Your task to perform on an android device: search for starred emails in the gmail app Image 0: 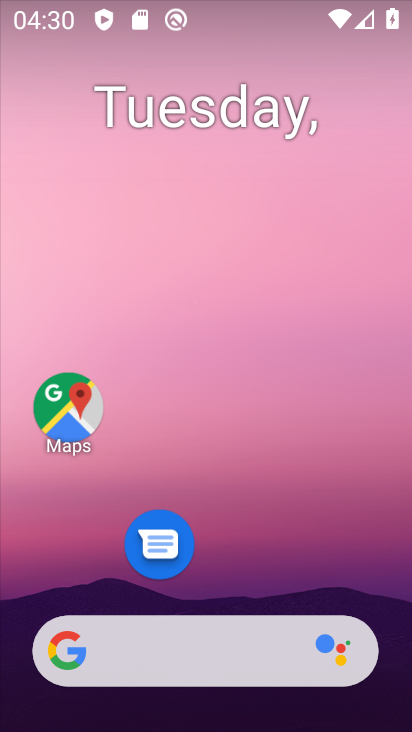
Step 0: drag from (225, 599) to (268, 8)
Your task to perform on an android device: search for starred emails in the gmail app Image 1: 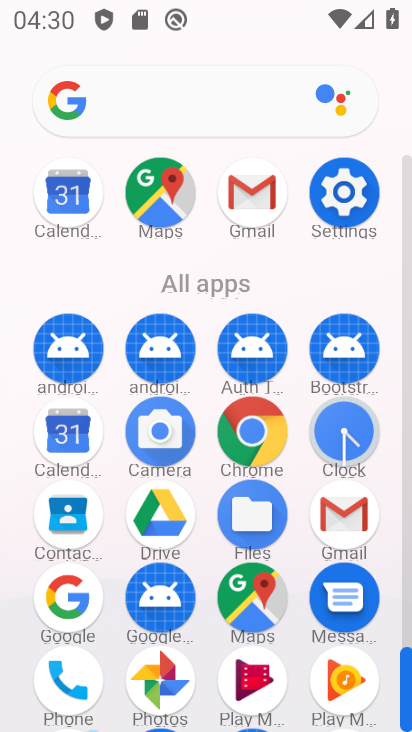
Step 1: click (255, 197)
Your task to perform on an android device: search for starred emails in the gmail app Image 2: 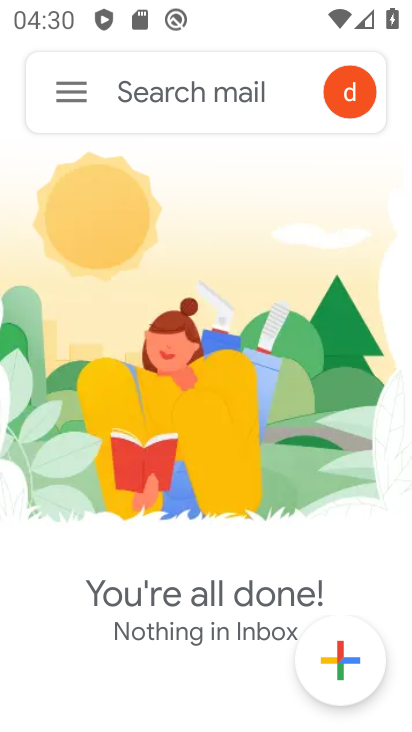
Step 2: click (58, 97)
Your task to perform on an android device: search for starred emails in the gmail app Image 3: 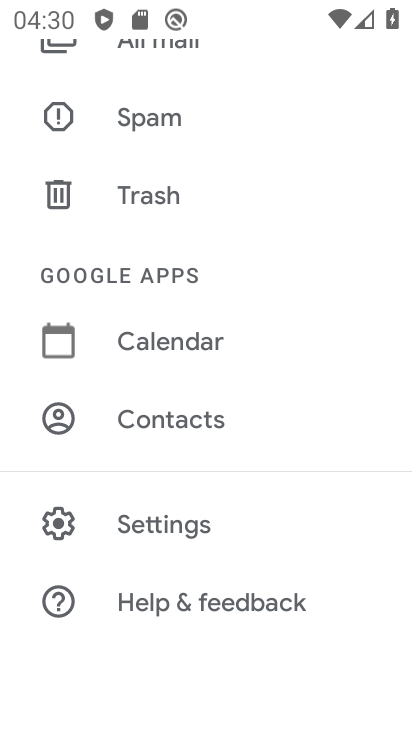
Step 3: drag from (220, 214) to (203, 459)
Your task to perform on an android device: search for starred emails in the gmail app Image 4: 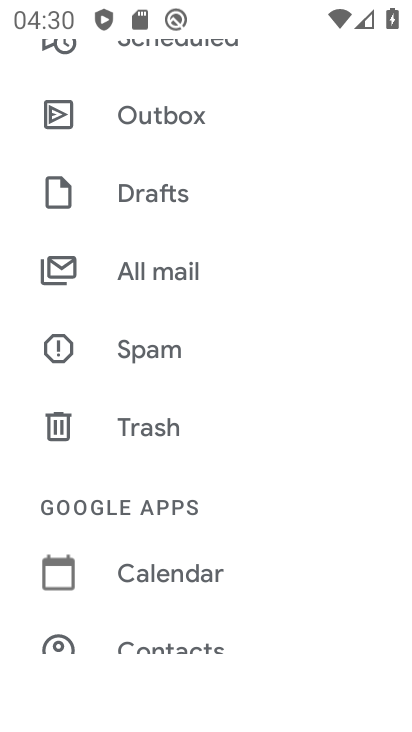
Step 4: drag from (192, 161) to (205, 506)
Your task to perform on an android device: search for starred emails in the gmail app Image 5: 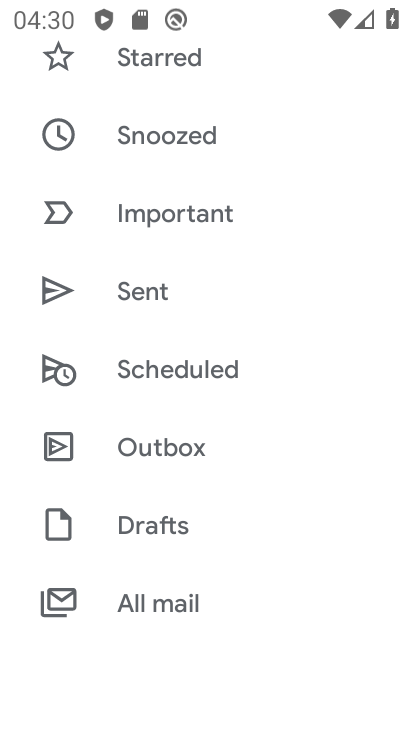
Step 5: click (175, 61)
Your task to perform on an android device: search for starred emails in the gmail app Image 6: 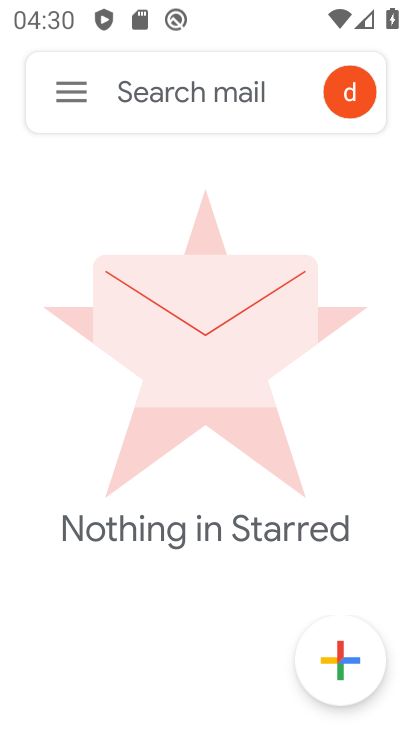
Step 6: task complete